Your task to perform on an android device: toggle notification dots Image 0: 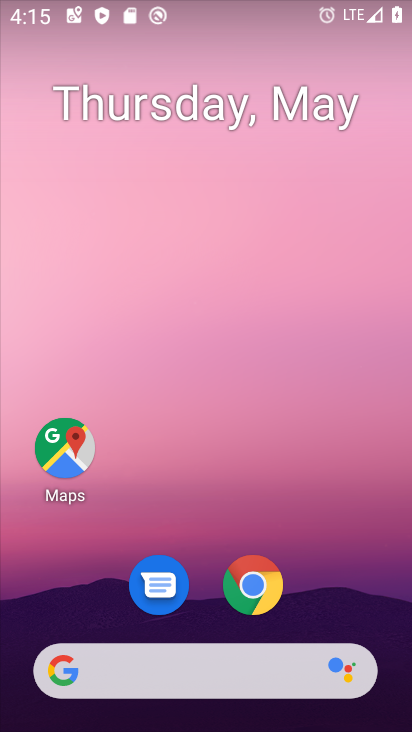
Step 0: drag from (212, 512) to (266, 92)
Your task to perform on an android device: toggle notification dots Image 1: 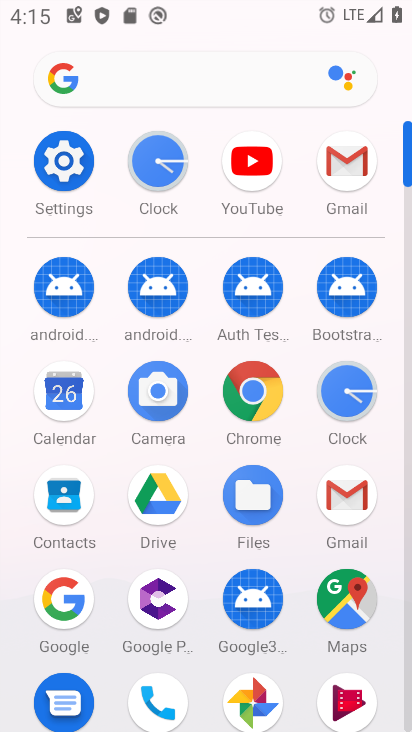
Step 1: click (59, 164)
Your task to perform on an android device: toggle notification dots Image 2: 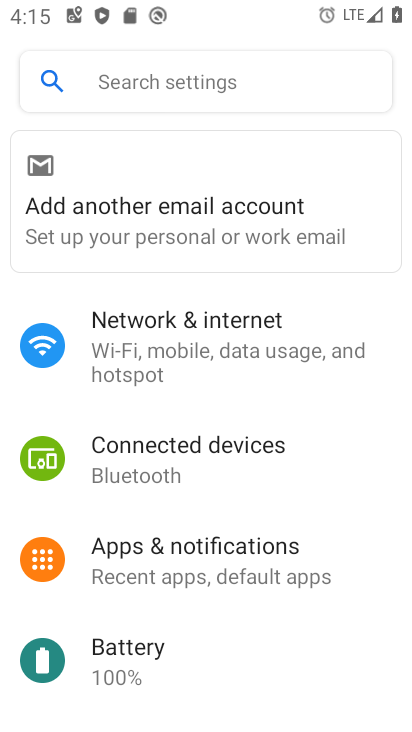
Step 2: click (223, 549)
Your task to perform on an android device: toggle notification dots Image 3: 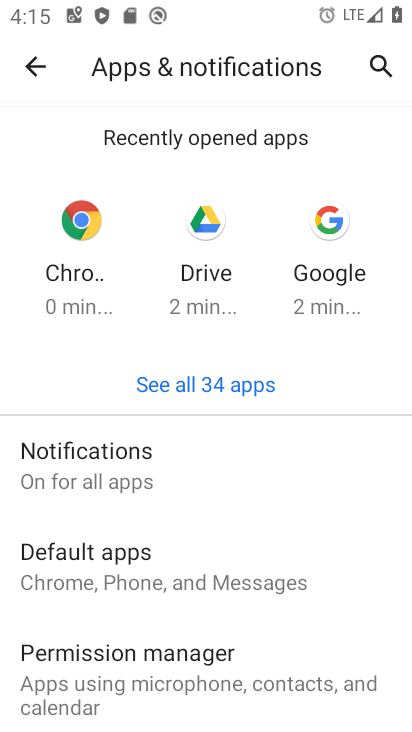
Step 3: click (185, 460)
Your task to perform on an android device: toggle notification dots Image 4: 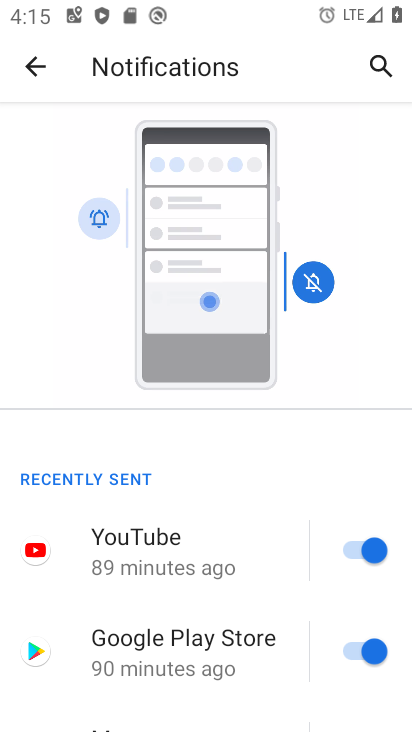
Step 4: drag from (222, 580) to (289, 113)
Your task to perform on an android device: toggle notification dots Image 5: 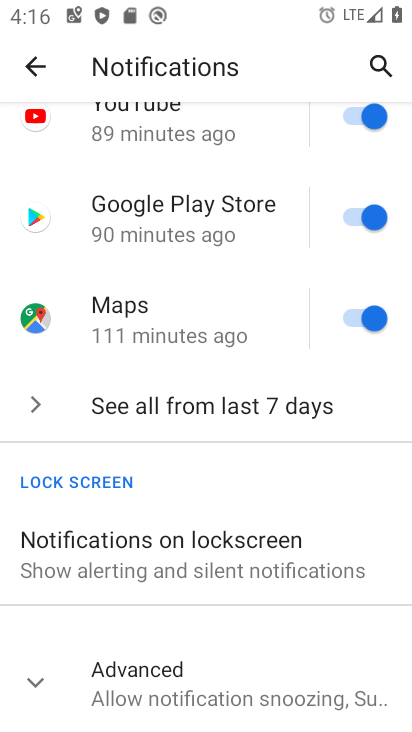
Step 5: drag from (222, 477) to (232, 244)
Your task to perform on an android device: toggle notification dots Image 6: 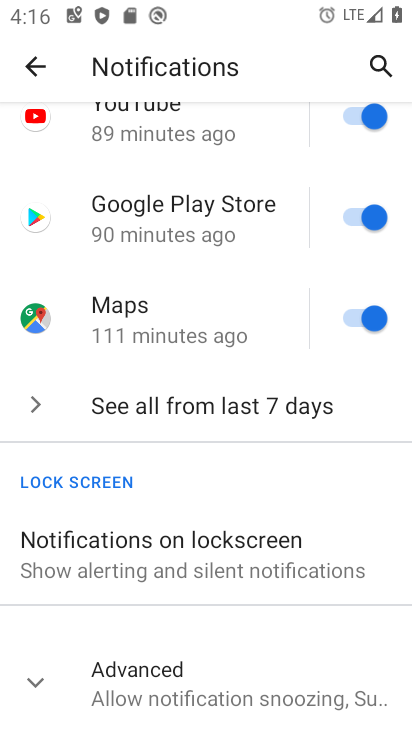
Step 6: click (33, 680)
Your task to perform on an android device: toggle notification dots Image 7: 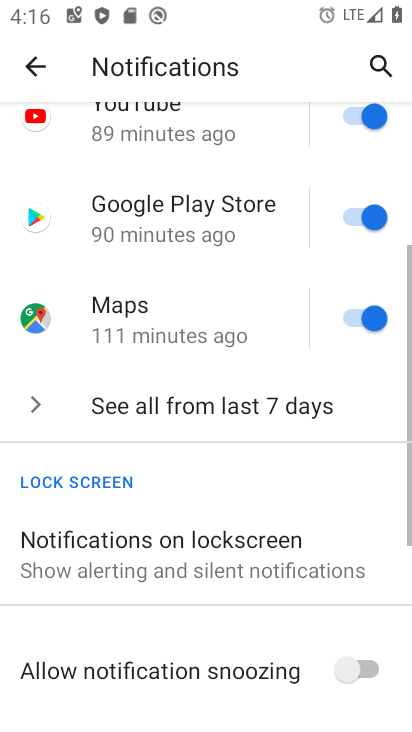
Step 7: drag from (152, 639) to (212, 250)
Your task to perform on an android device: toggle notification dots Image 8: 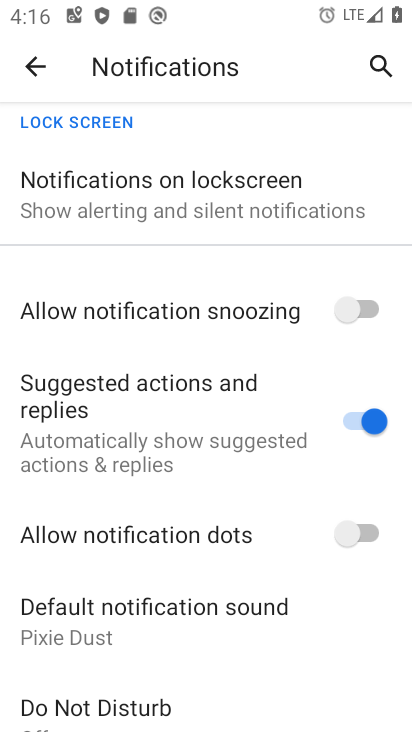
Step 8: click (360, 531)
Your task to perform on an android device: toggle notification dots Image 9: 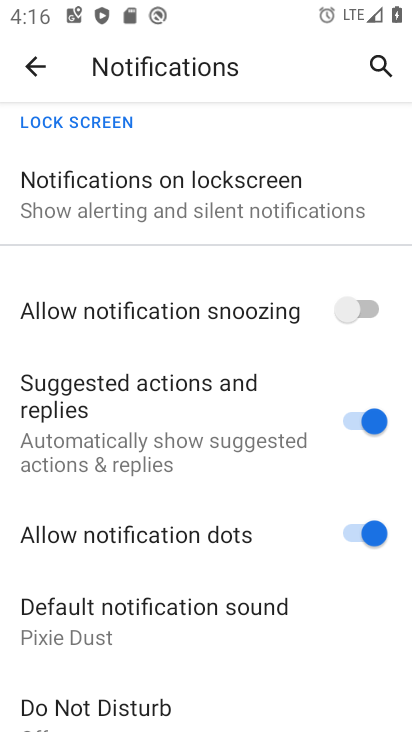
Step 9: task complete